Your task to perform on an android device: Open Android settings Image 0: 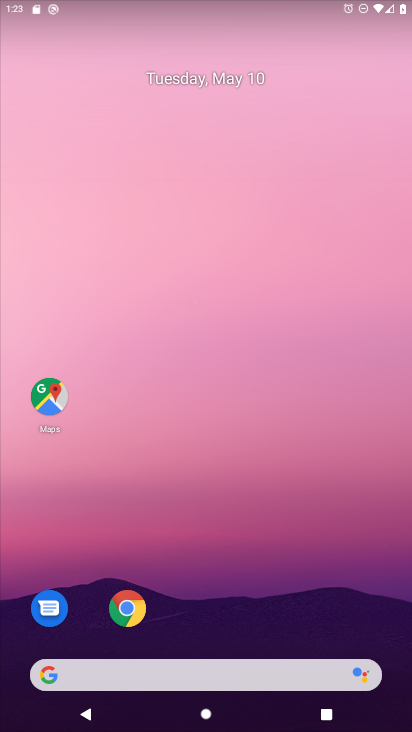
Step 0: drag from (250, 597) to (257, 130)
Your task to perform on an android device: Open Android settings Image 1: 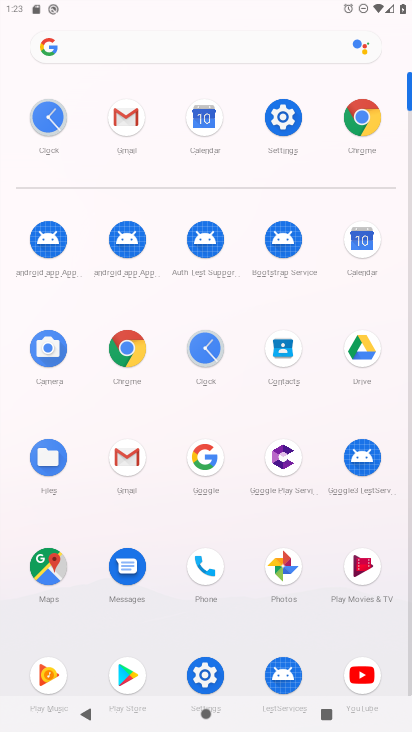
Step 1: click (212, 678)
Your task to perform on an android device: Open Android settings Image 2: 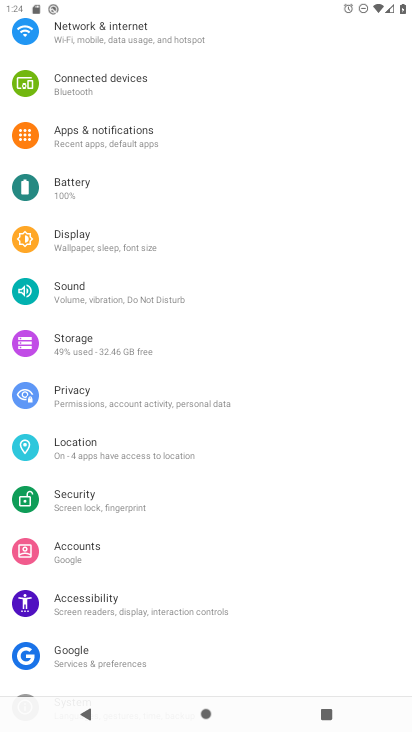
Step 2: task complete